Your task to perform on an android device: set default search engine in the chrome app Image 0: 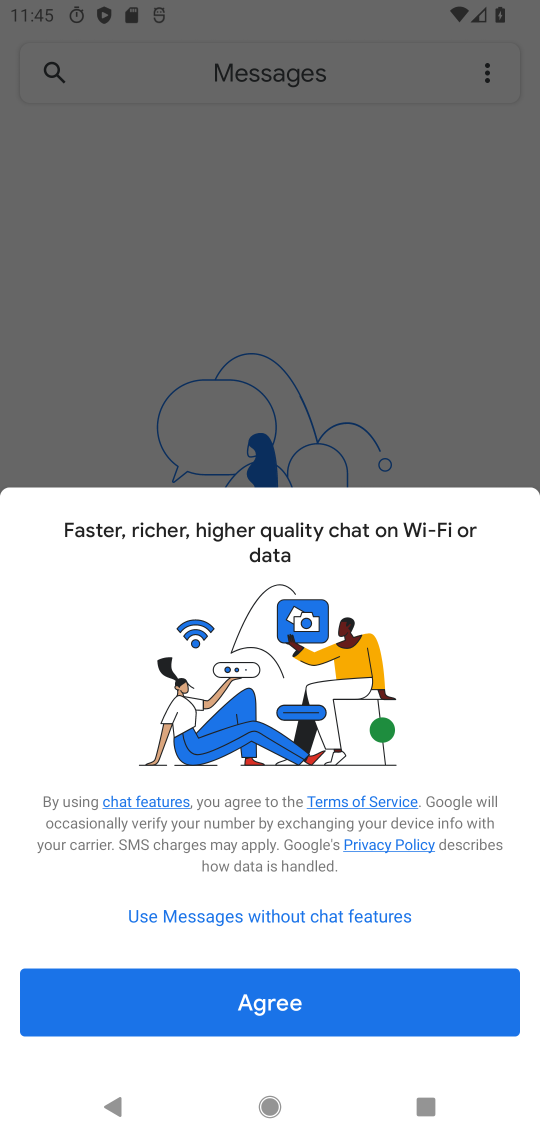
Step 0: press home button
Your task to perform on an android device: set default search engine in the chrome app Image 1: 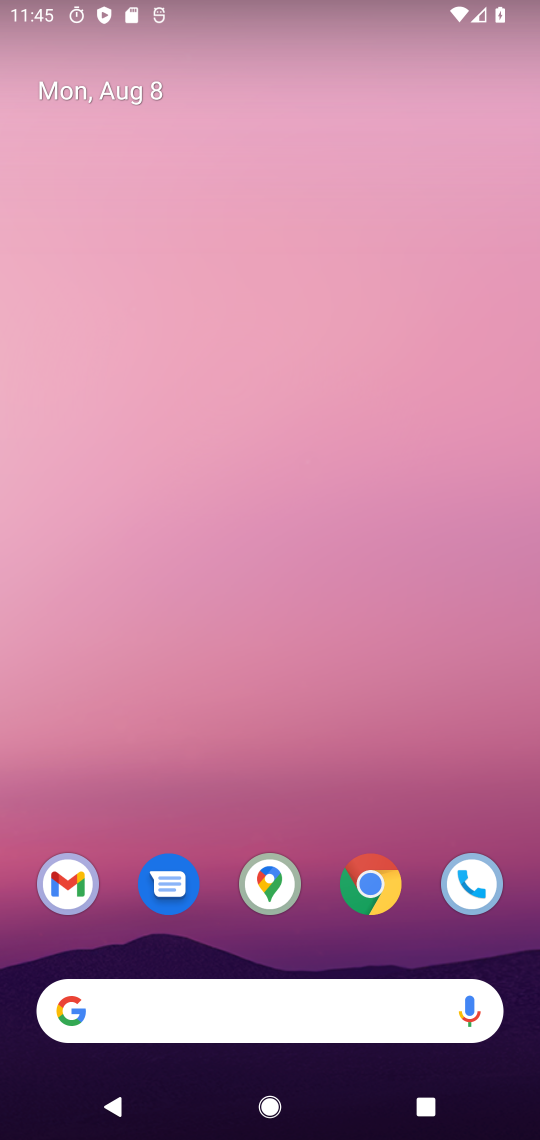
Step 1: click (377, 891)
Your task to perform on an android device: set default search engine in the chrome app Image 2: 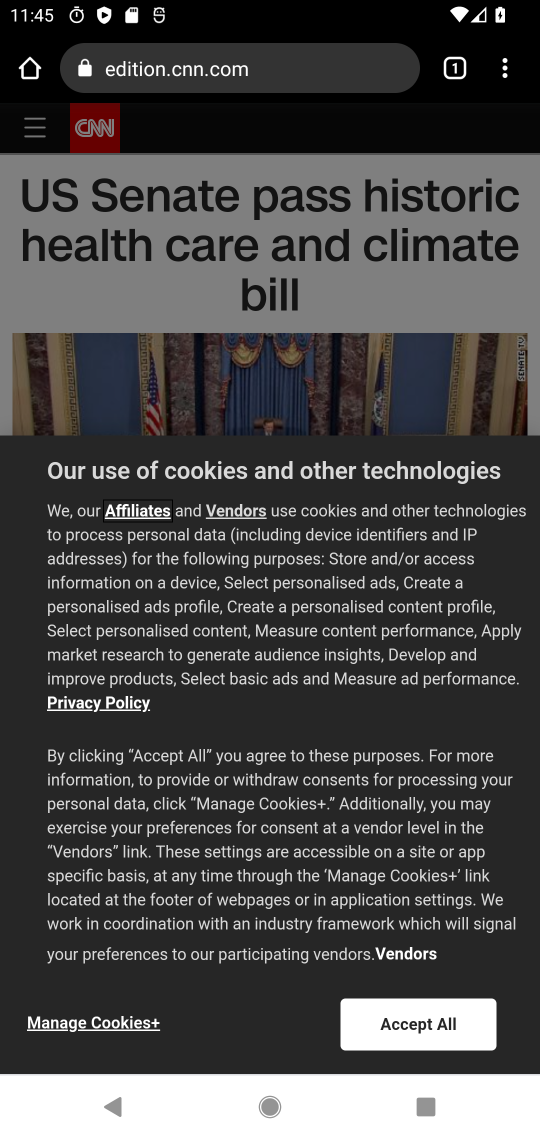
Step 2: click (510, 78)
Your task to perform on an android device: set default search engine in the chrome app Image 3: 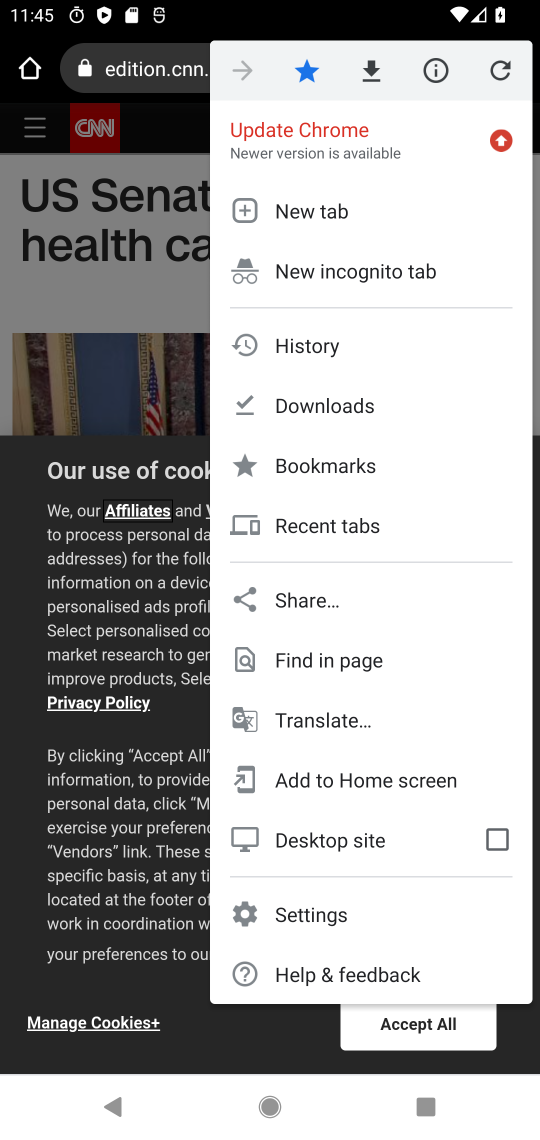
Step 3: click (292, 910)
Your task to perform on an android device: set default search engine in the chrome app Image 4: 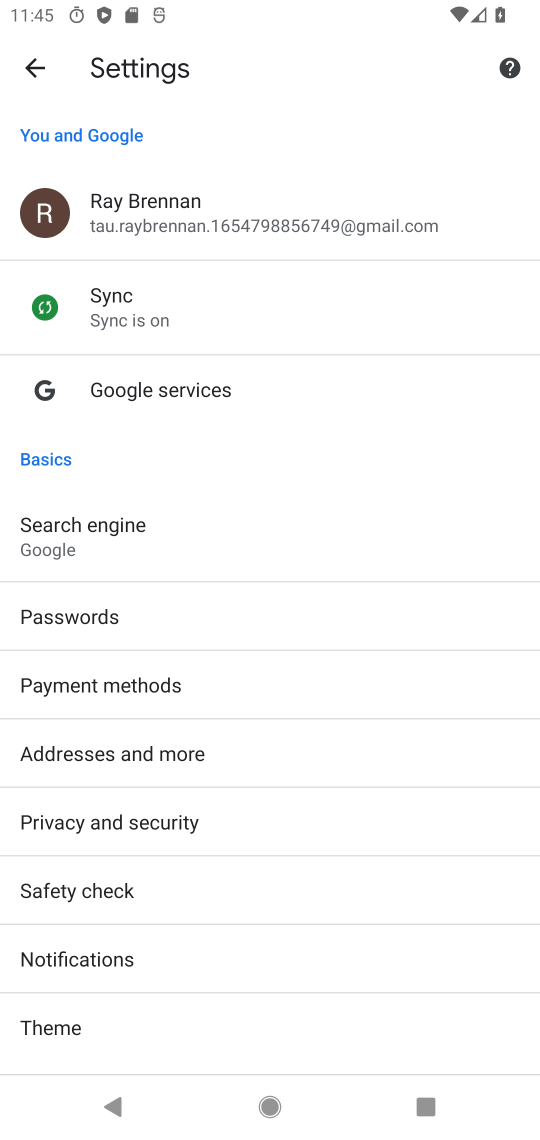
Step 4: click (73, 537)
Your task to perform on an android device: set default search engine in the chrome app Image 5: 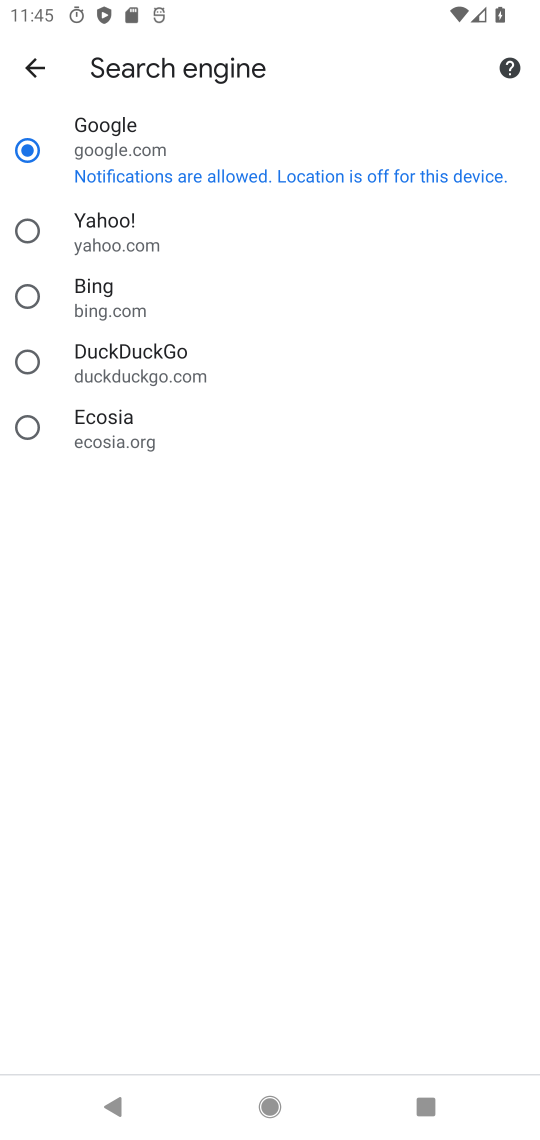
Step 5: click (20, 233)
Your task to perform on an android device: set default search engine in the chrome app Image 6: 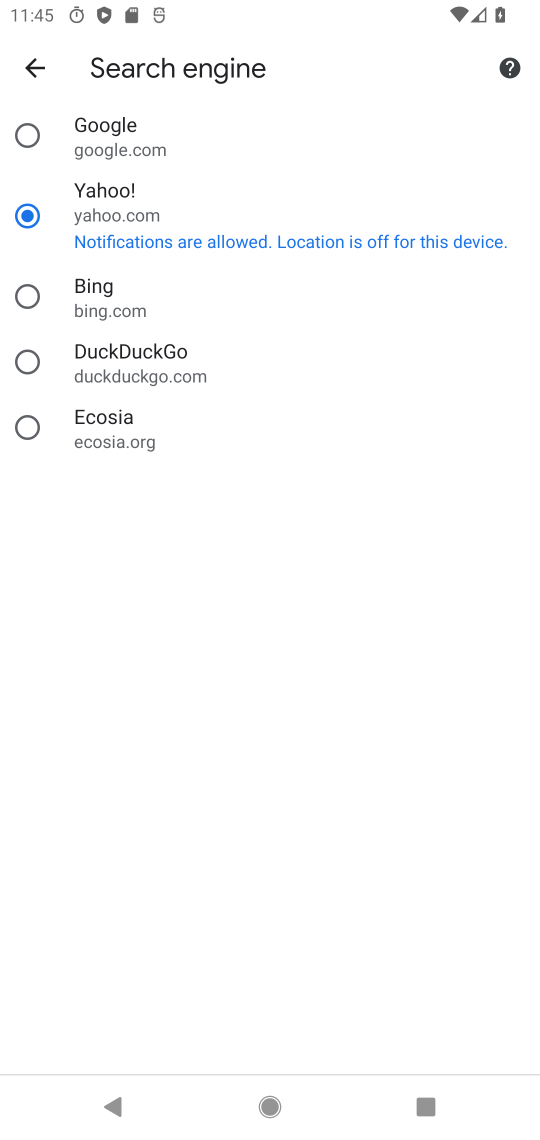
Step 6: task complete